Your task to perform on an android device: make emails show in primary in the gmail app Image 0: 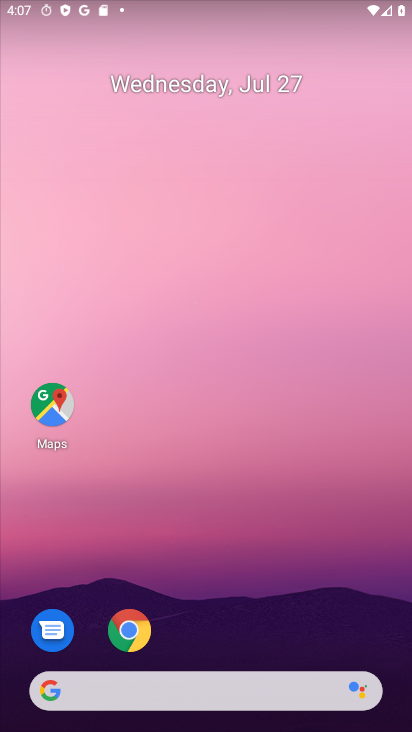
Step 0: drag from (234, 660) to (302, 0)
Your task to perform on an android device: make emails show in primary in the gmail app Image 1: 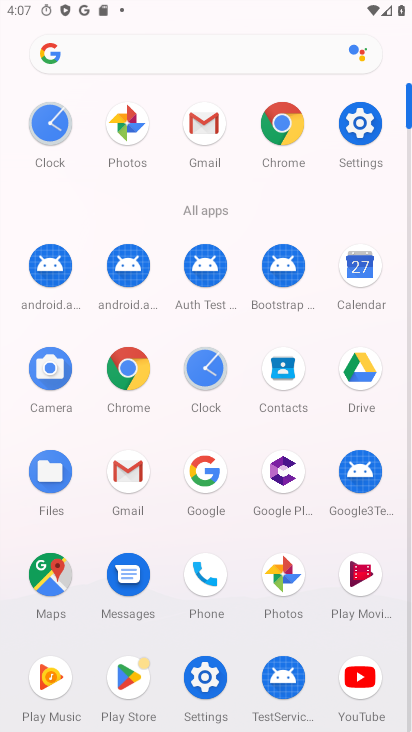
Step 1: click (123, 483)
Your task to perform on an android device: make emails show in primary in the gmail app Image 2: 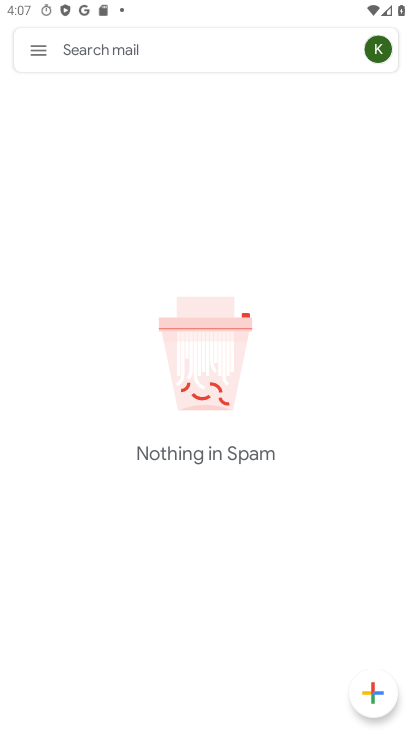
Step 2: click (37, 57)
Your task to perform on an android device: make emails show in primary in the gmail app Image 3: 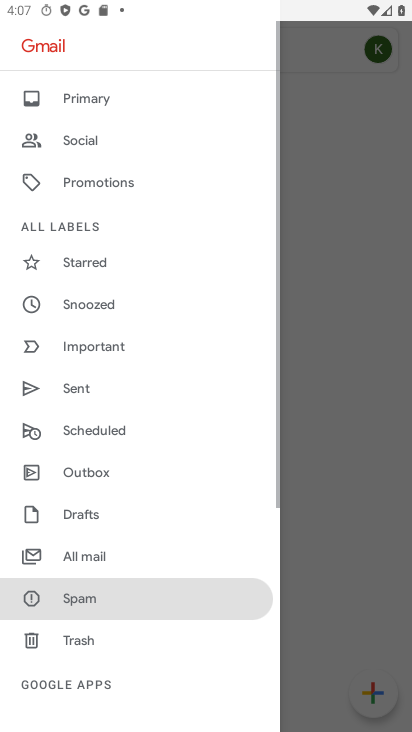
Step 3: drag from (94, 637) to (167, 70)
Your task to perform on an android device: make emails show in primary in the gmail app Image 4: 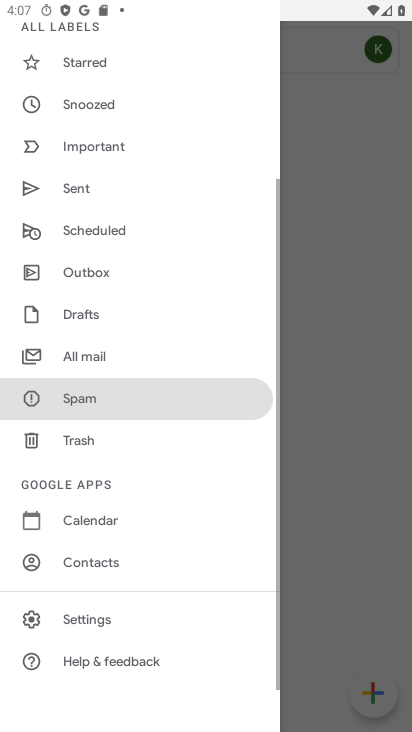
Step 4: click (89, 624)
Your task to perform on an android device: make emails show in primary in the gmail app Image 5: 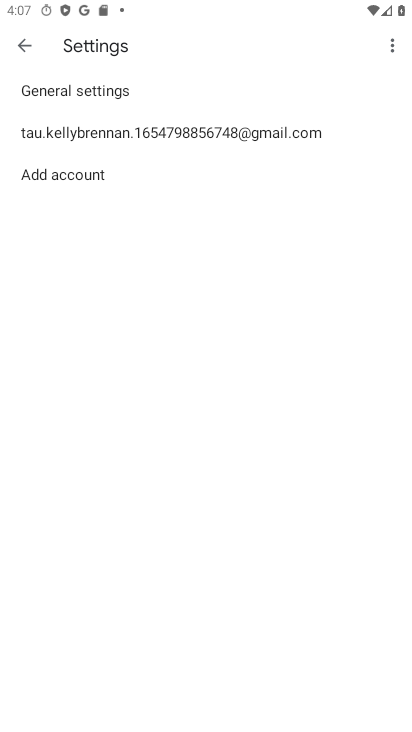
Step 5: click (145, 135)
Your task to perform on an android device: make emails show in primary in the gmail app Image 6: 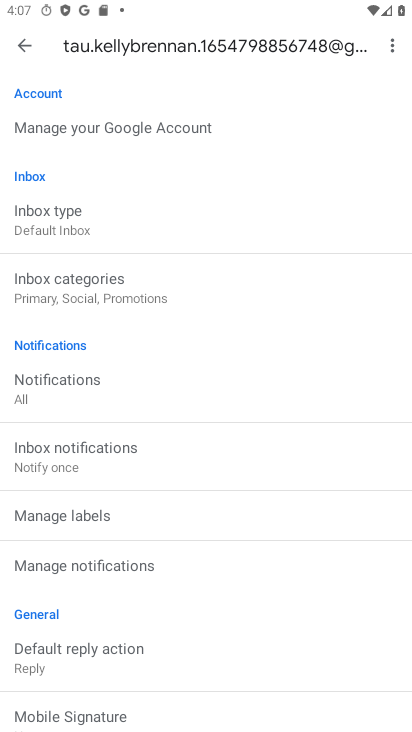
Step 6: click (87, 293)
Your task to perform on an android device: make emails show in primary in the gmail app Image 7: 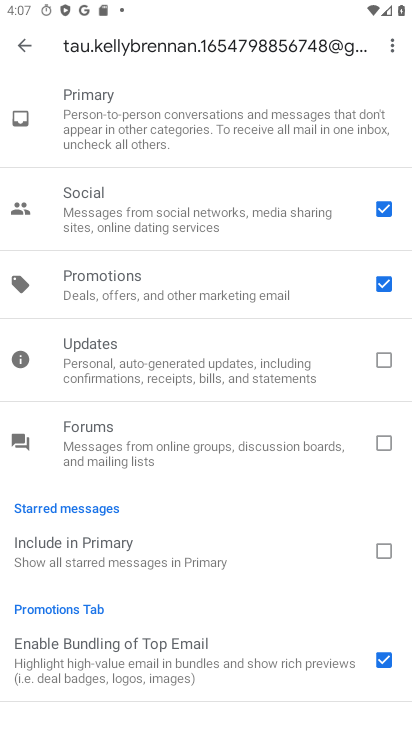
Step 7: click (374, 278)
Your task to perform on an android device: make emails show in primary in the gmail app Image 8: 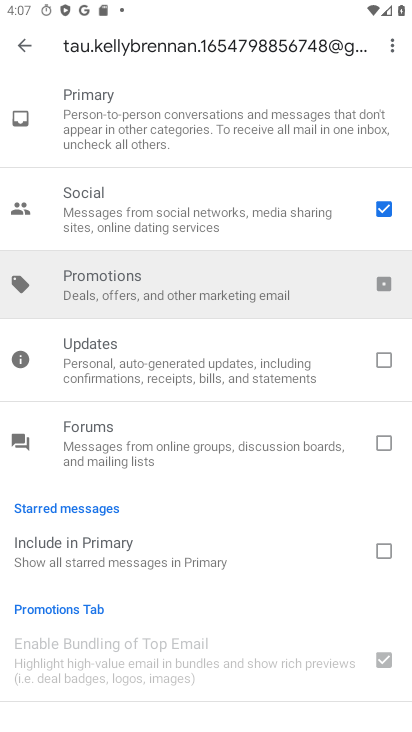
Step 8: click (373, 215)
Your task to perform on an android device: make emails show in primary in the gmail app Image 9: 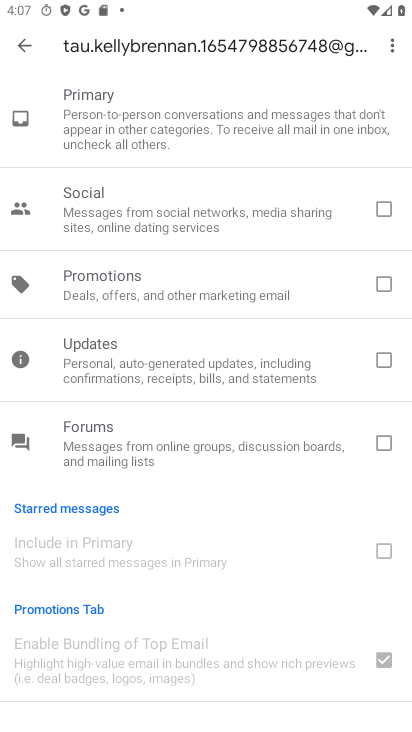
Step 9: task complete